Your task to perform on an android device: Check out the best rated electric trimmers on Lowe's Image 0: 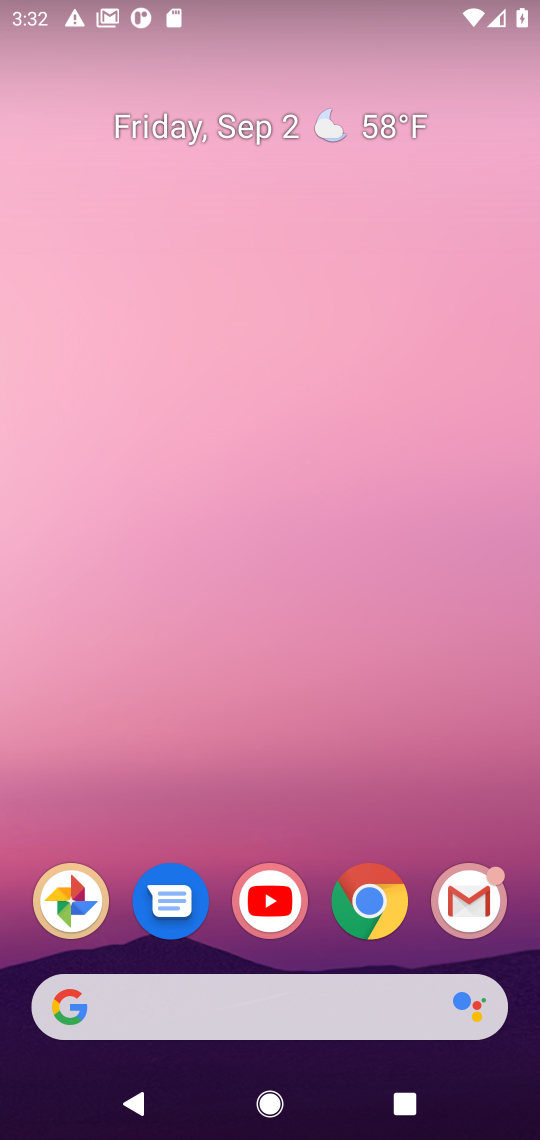
Step 0: click (374, 137)
Your task to perform on an android device: Check out the best rated electric trimmers on Lowe's Image 1: 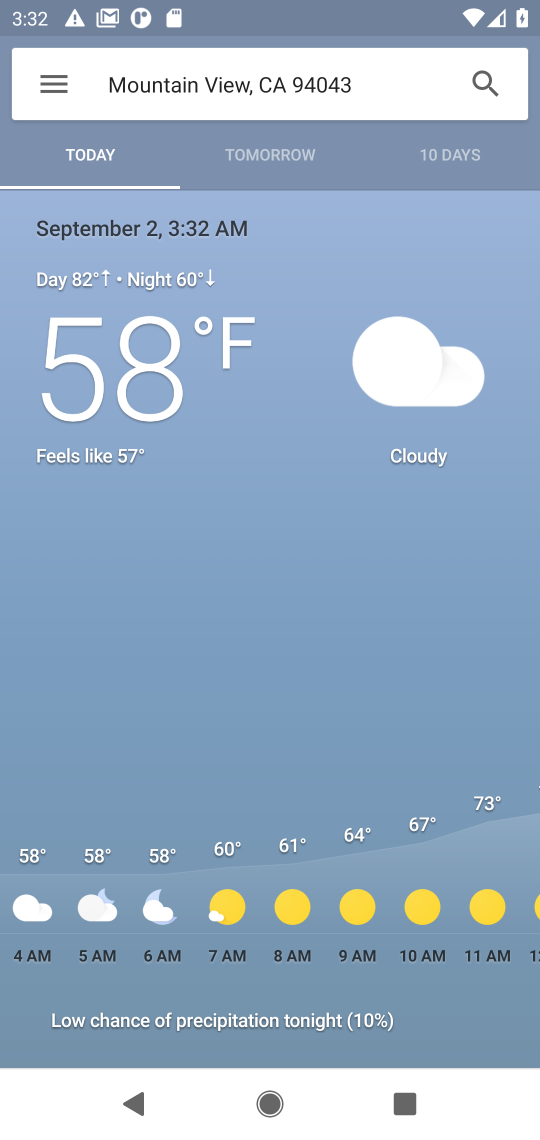
Step 1: press home button
Your task to perform on an android device: Check out the best rated electric trimmers on Lowe's Image 2: 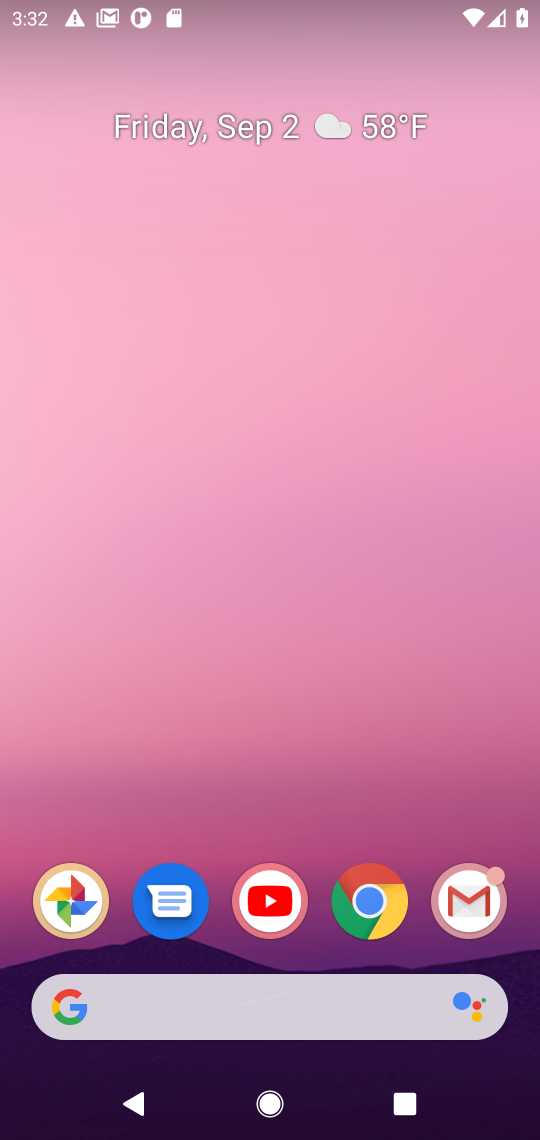
Step 2: drag from (419, 270) to (442, 161)
Your task to perform on an android device: Check out the best rated electric trimmers on Lowe's Image 3: 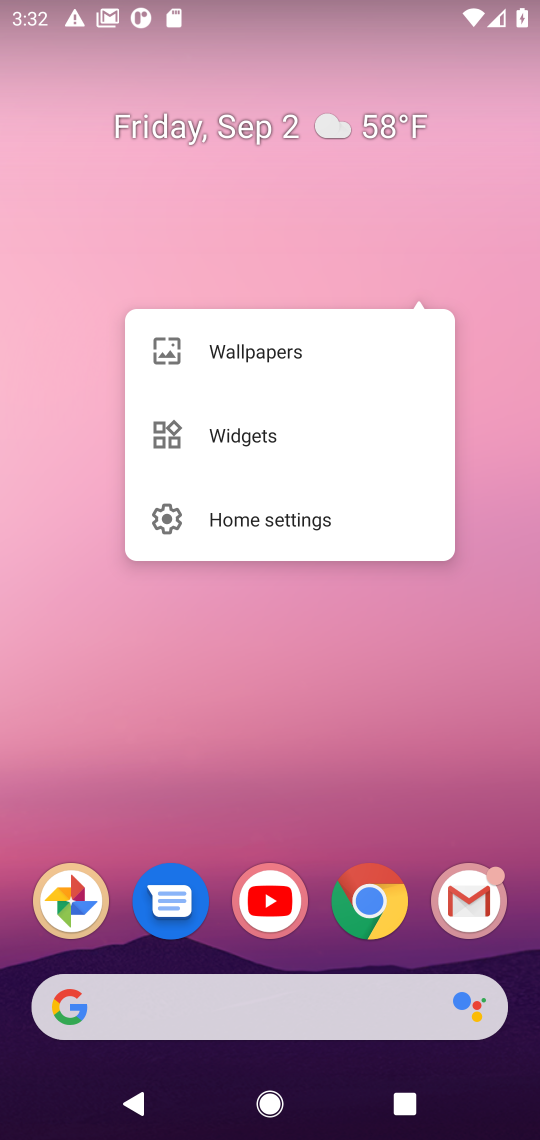
Step 3: click (212, 806)
Your task to perform on an android device: Check out the best rated electric trimmers on Lowe's Image 4: 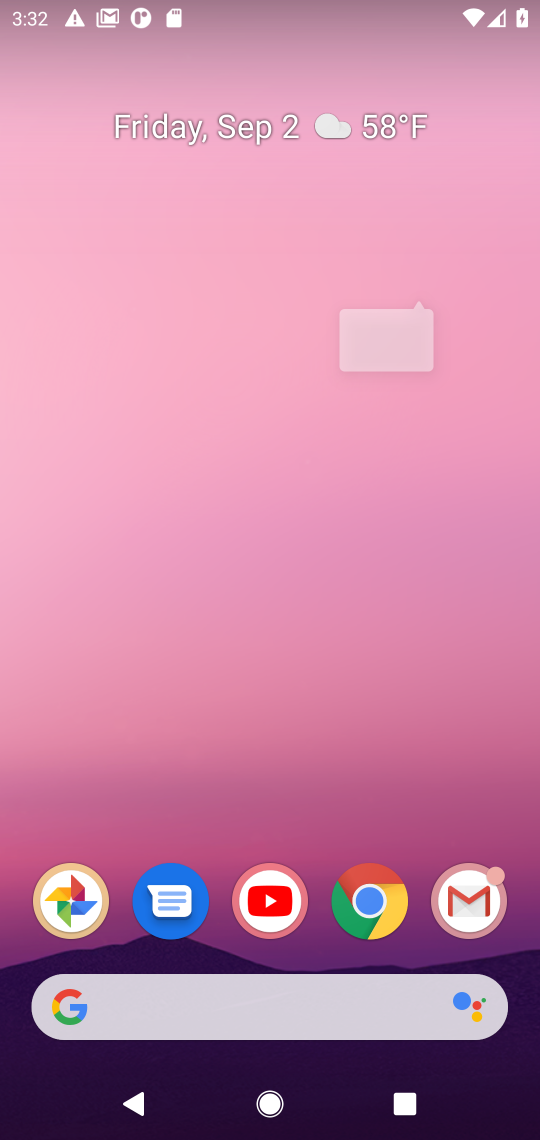
Step 4: drag from (212, 806) to (321, 88)
Your task to perform on an android device: Check out the best rated electric trimmers on Lowe's Image 5: 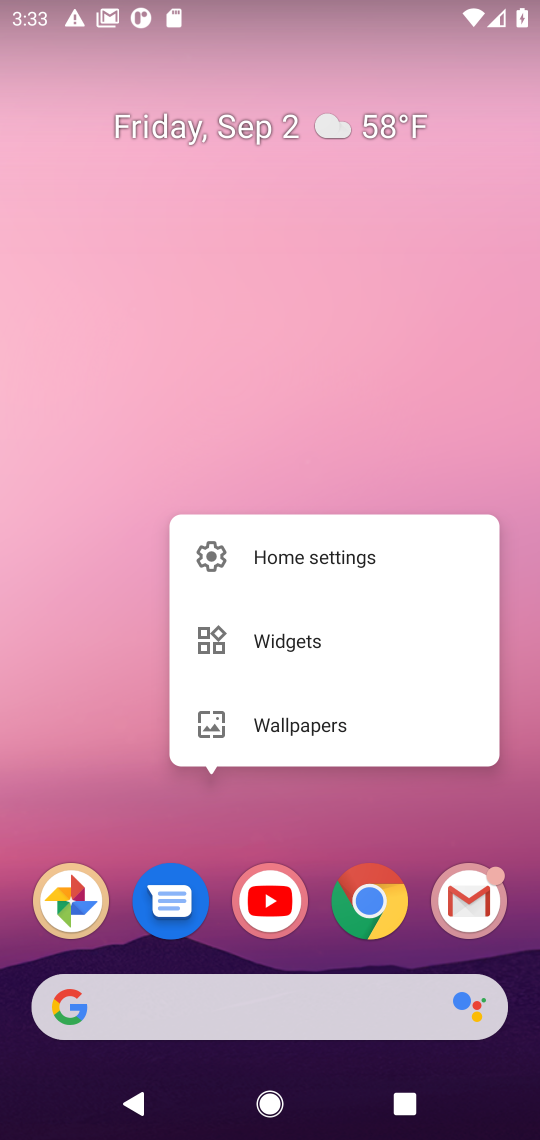
Step 5: click (490, 450)
Your task to perform on an android device: Check out the best rated electric trimmers on Lowe's Image 6: 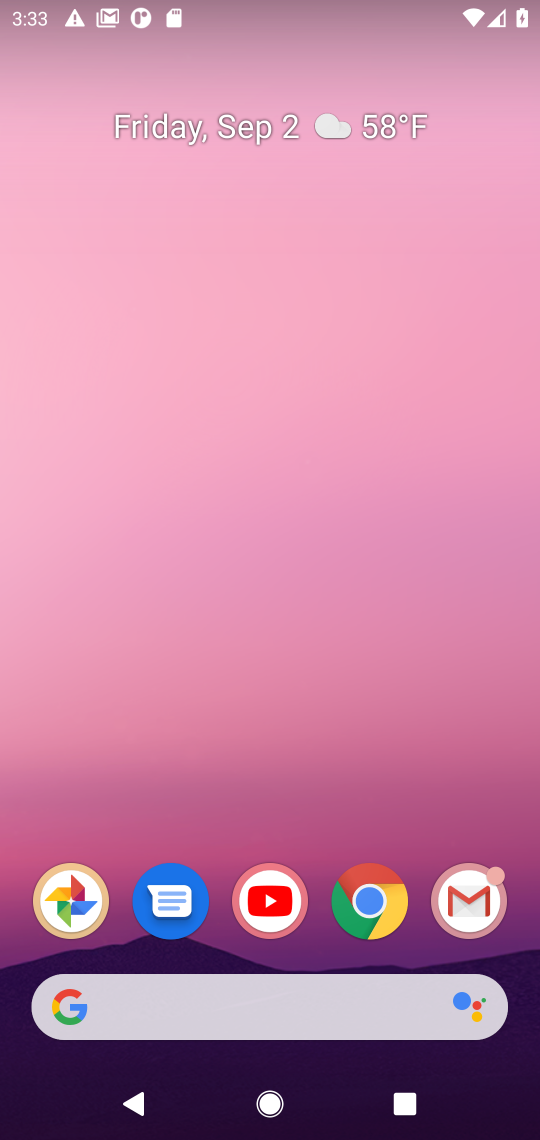
Step 6: click (339, 813)
Your task to perform on an android device: Check out the best rated electric trimmers on Lowe's Image 7: 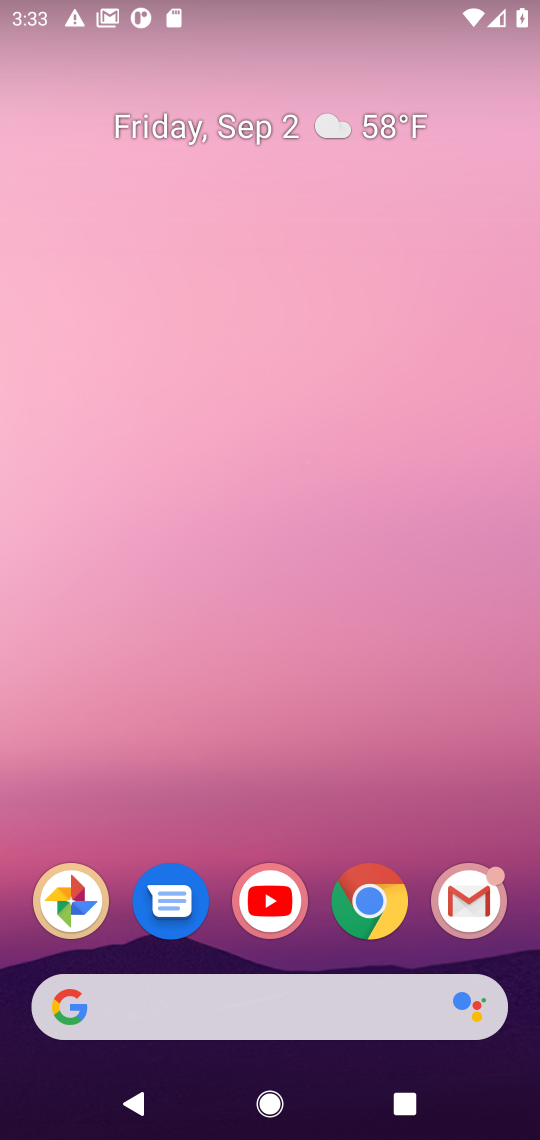
Step 7: drag from (330, 852) to (373, 99)
Your task to perform on an android device: Check out the best rated electric trimmers on Lowe's Image 8: 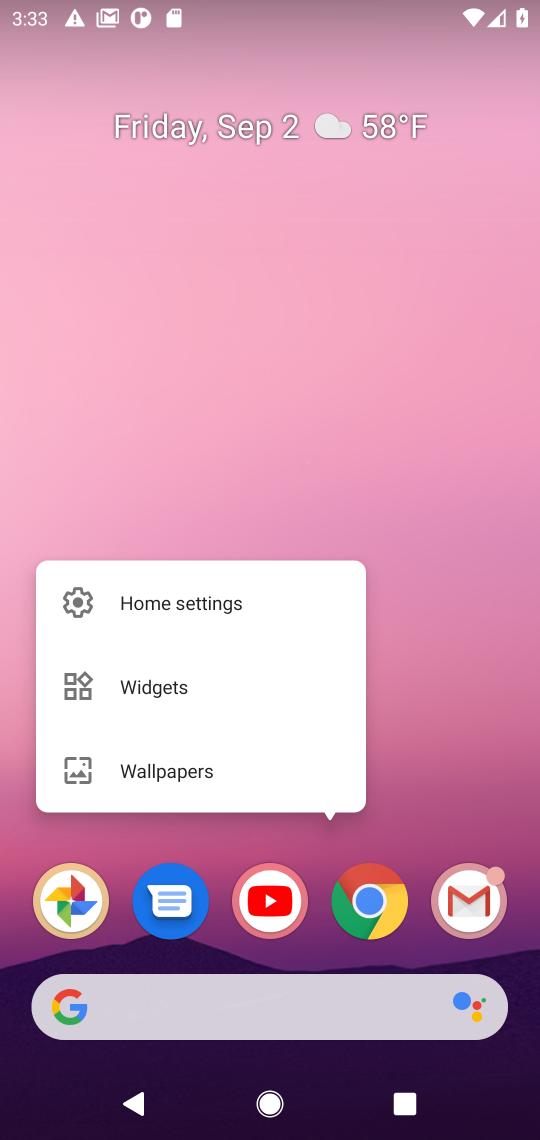
Step 8: click (376, 620)
Your task to perform on an android device: Check out the best rated electric trimmers on Lowe's Image 9: 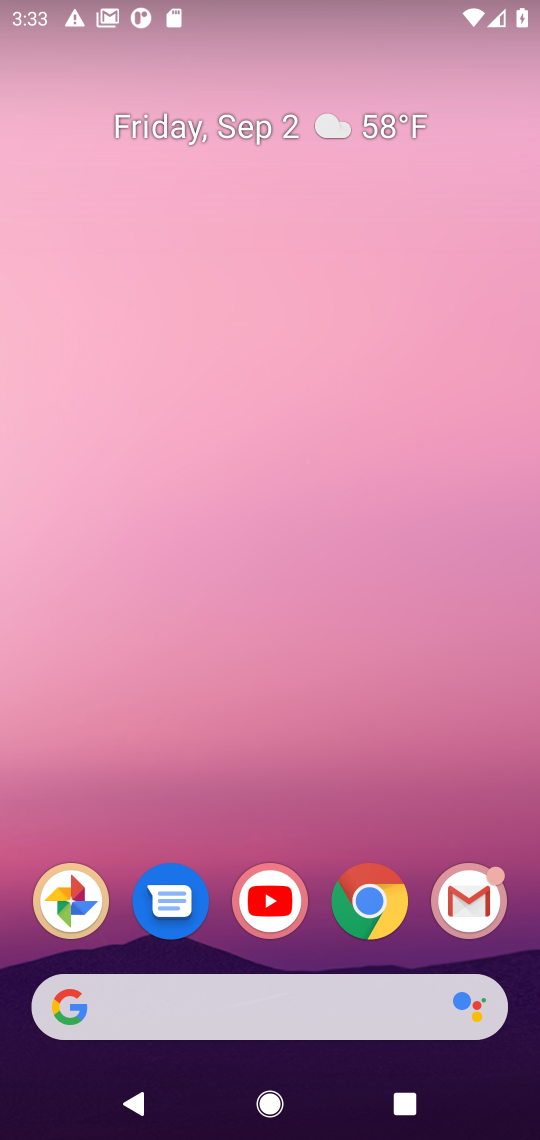
Step 9: drag from (427, 178) to (446, 82)
Your task to perform on an android device: Check out the best rated electric trimmers on Lowe's Image 10: 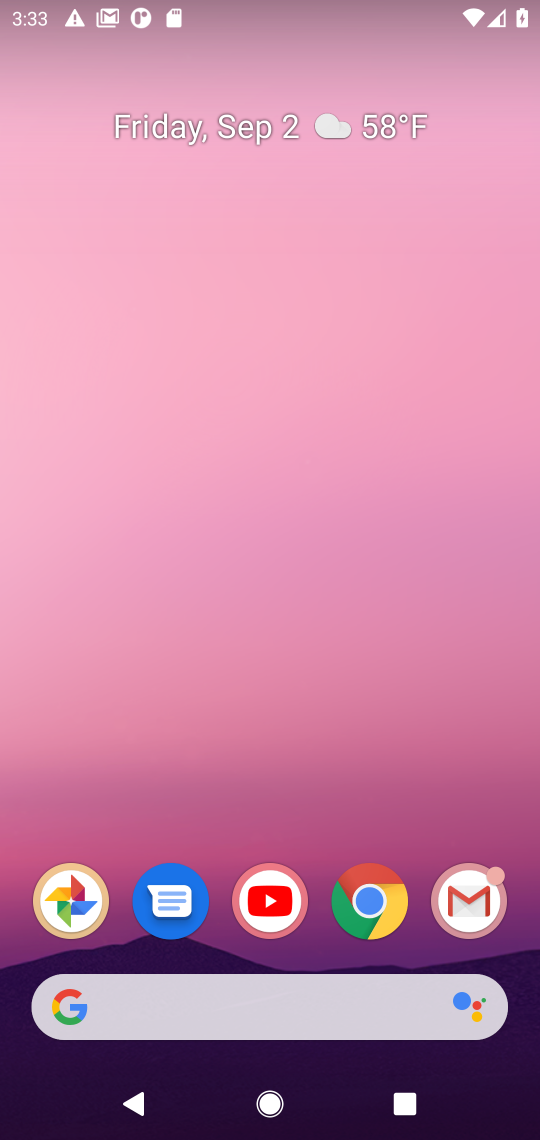
Step 10: drag from (318, 950) to (388, 226)
Your task to perform on an android device: Check out the best rated electric trimmers on Lowe's Image 11: 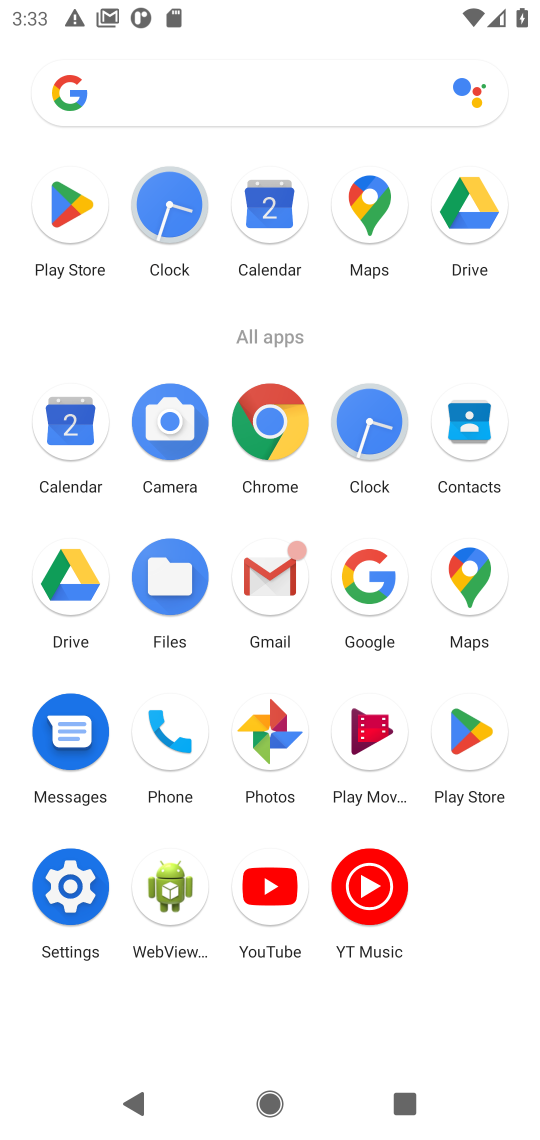
Step 11: click (277, 419)
Your task to perform on an android device: Check out the best rated electric trimmers on Lowe's Image 12: 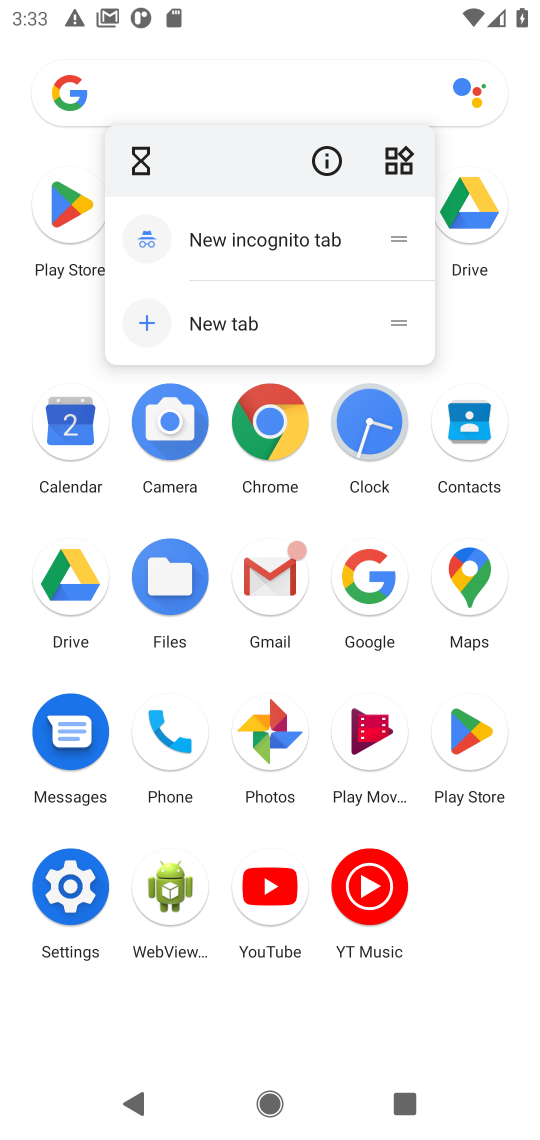
Step 12: click (277, 419)
Your task to perform on an android device: Check out the best rated electric trimmers on Lowe's Image 13: 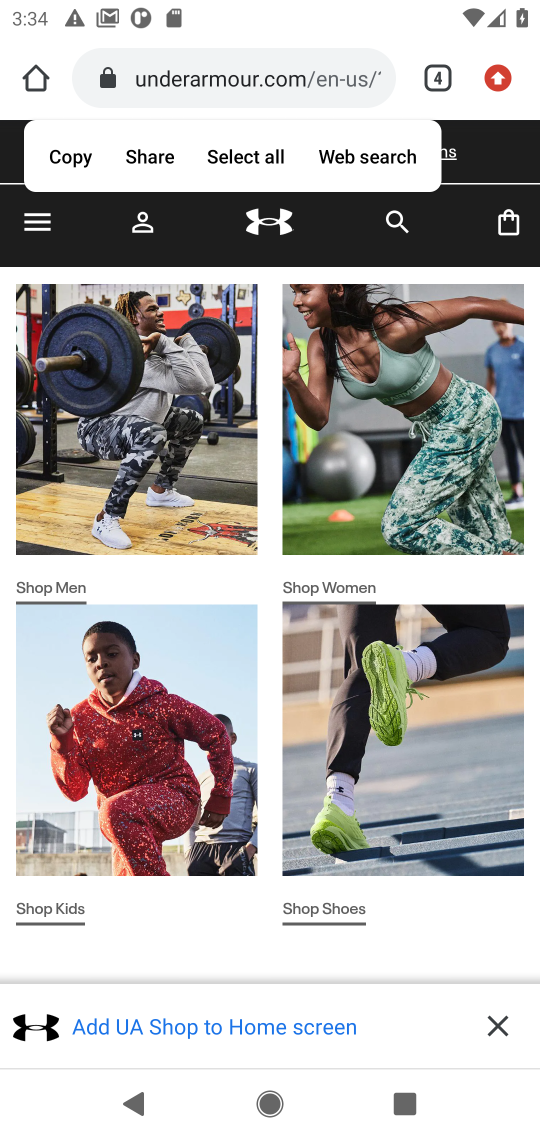
Step 13: task complete